Your task to perform on an android device: turn on priority inbox in the gmail app Image 0: 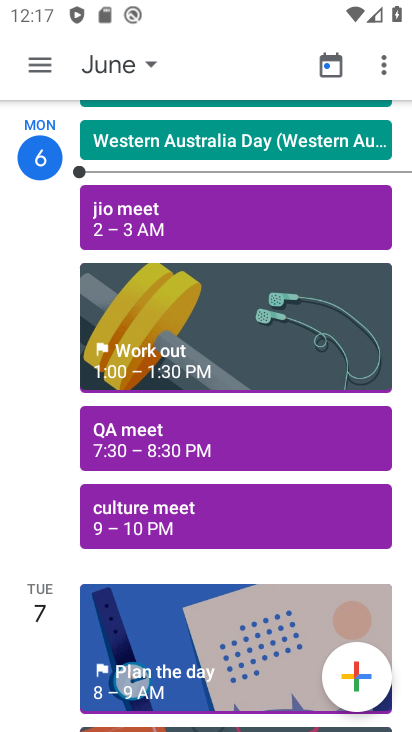
Step 0: press home button
Your task to perform on an android device: turn on priority inbox in the gmail app Image 1: 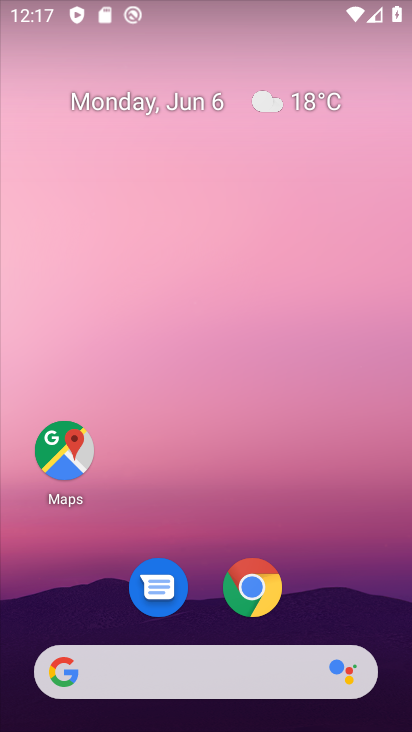
Step 1: drag from (367, 579) to (332, 75)
Your task to perform on an android device: turn on priority inbox in the gmail app Image 2: 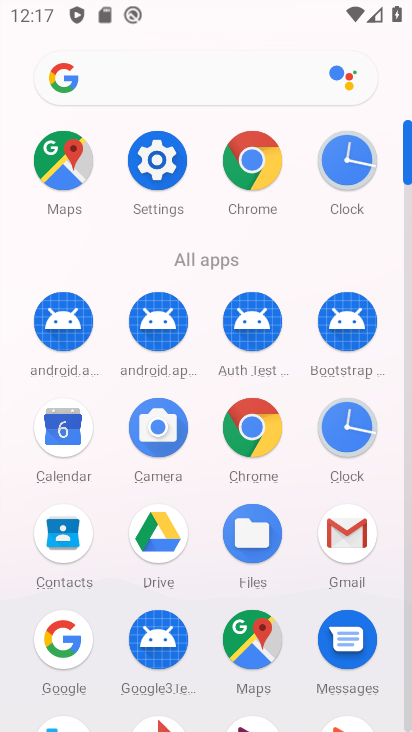
Step 2: click (357, 538)
Your task to perform on an android device: turn on priority inbox in the gmail app Image 3: 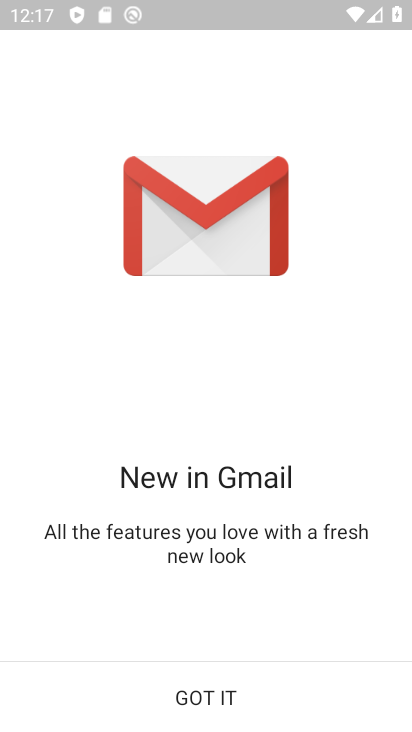
Step 3: click (235, 693)
Your task to perform on an android device: turn on priority inbox in the gmail app Image 4: 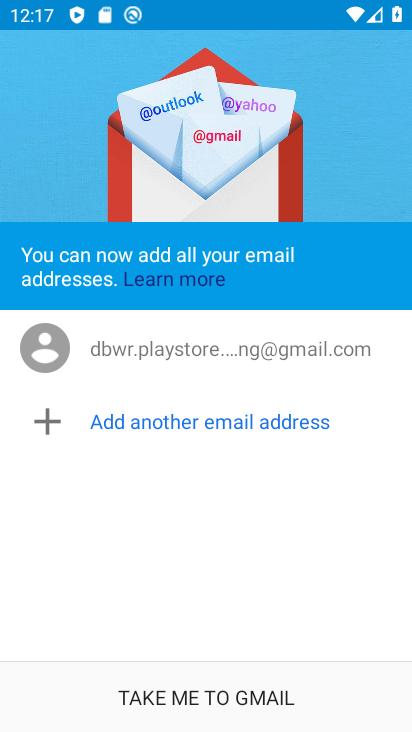
Step 4: click (235, 694)
Your task to perform on an android device: turn on priority inbox in the gmail app Image 5: 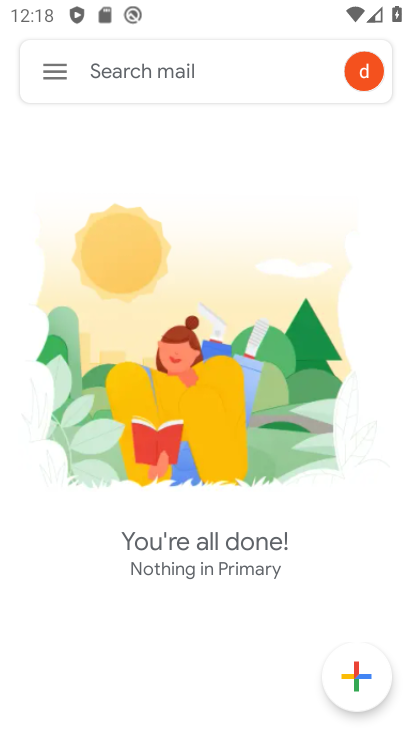
Step 5: click (43, 68)
Your task to perform on an android device: turn on priority inbox in the gmail app Image 6: 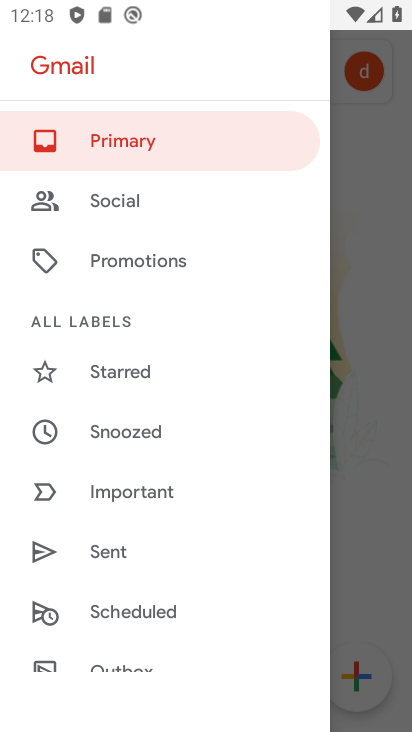
Step 6: drag from (123, 612) to (166, 286)
Your task to perform on an android device: turn on priority inbox in the gmail app Image 7: 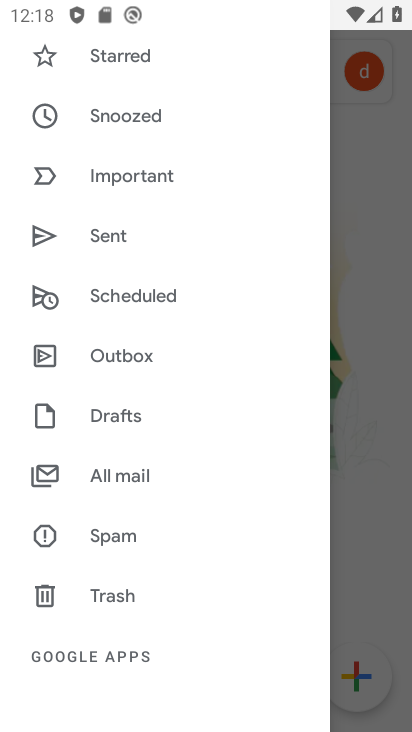
Step 7: drag from (174, 547) to (197, 233)
Your task to perform on an android device: turn on priority inbox in the gmail app Image 8: 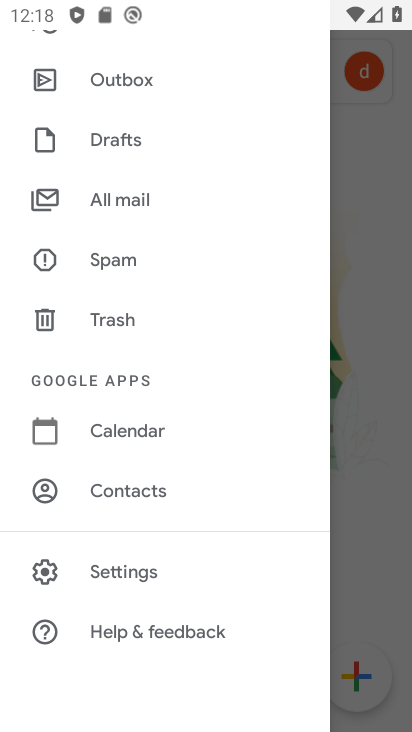
Step 8: click (137, 579)
Your task to perform on an android device: turn on priority inbox in the gmail app Image 9: 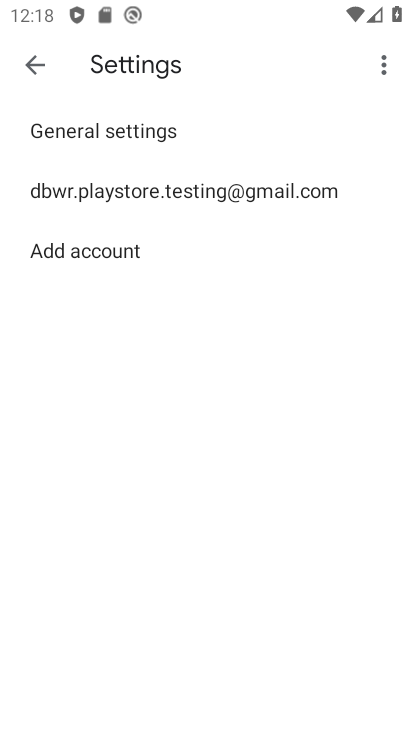
Step 9: click (229, 195)
Your task to perform on an android device: turn on priority inbox in the gmail app Image 10: 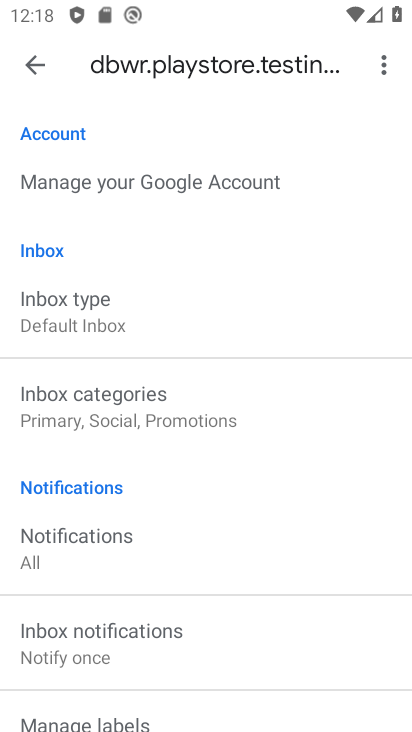
Step 10: drag from (220, 581) to (275, 258)
Your task to perform on an android device: turn on priority inbox in the gmail app Image 11: 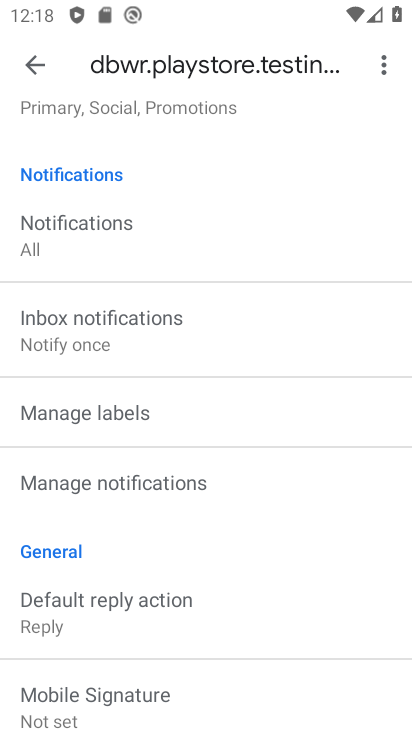
Step 11: drag from (297, 371) to (288, 608)
Your task to perform on an android device: turn on priority inbox in the gmail app Image 12: 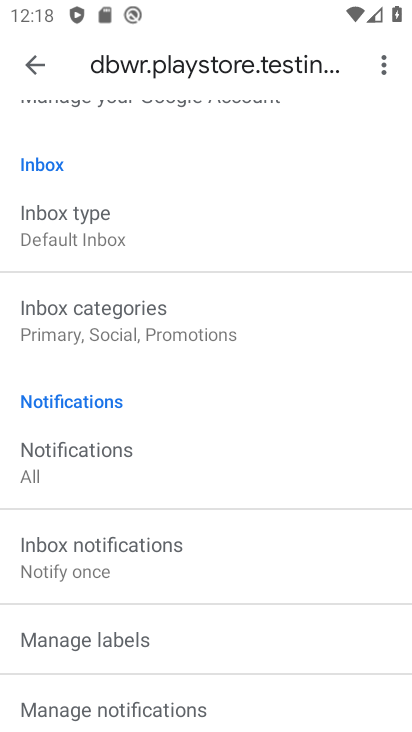
Step 12: click (135, 228)
Your task to perform on an android device: turn on priority inbox in the gmail app Image 13: 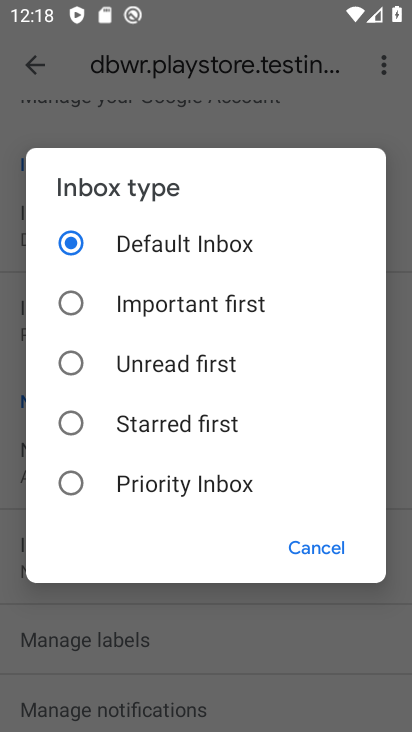
Step 13: click (76, 482)
Your task to perform on an android device: turn on priority inbox in the gmail app Image 14: 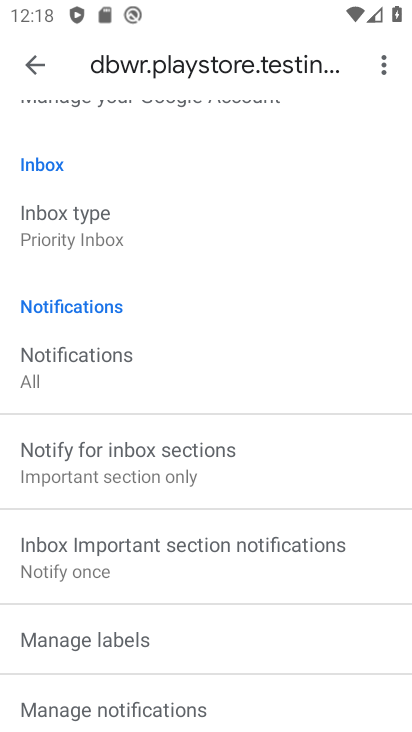
Step 14: task complete